Your task to perform on an android device: turn off picture-in-picture Image 0: 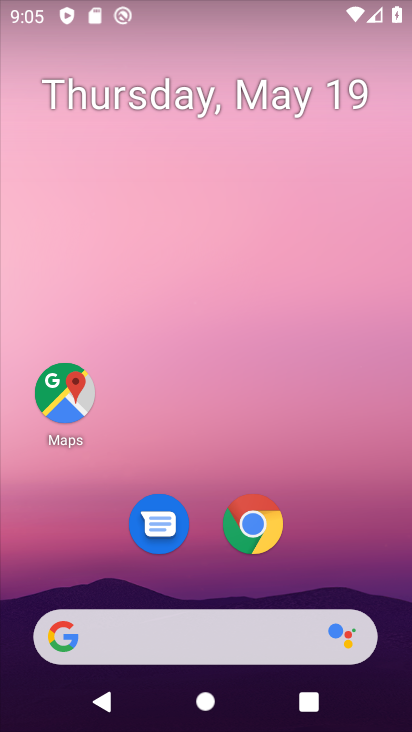
Step 0: click (250, 518)
Your task to perform on an android device: turn off picture-in-picture Image 1: 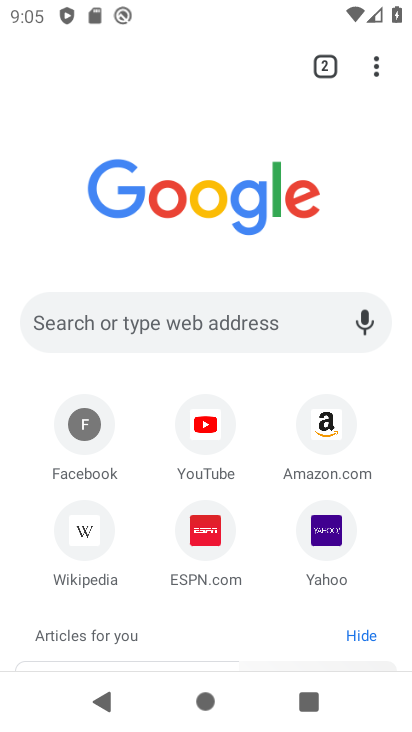
Step 1: press back button
Your task to perform on an android device: turn off picture-in-picture Image 2: 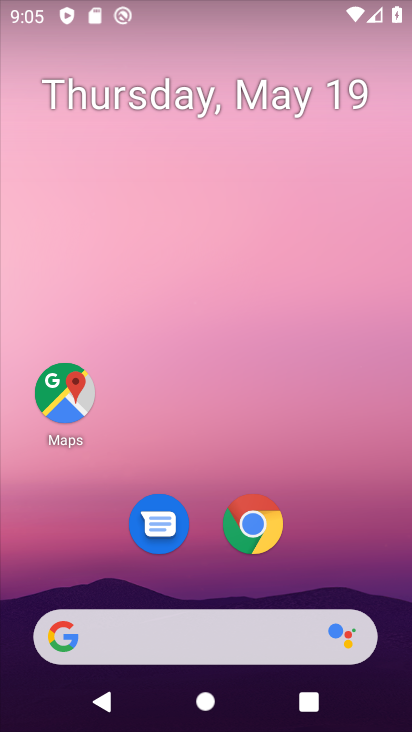
Step 2: click (250, 514)
Your task to perform on an android device: turn off picture-in-picture Image 3: 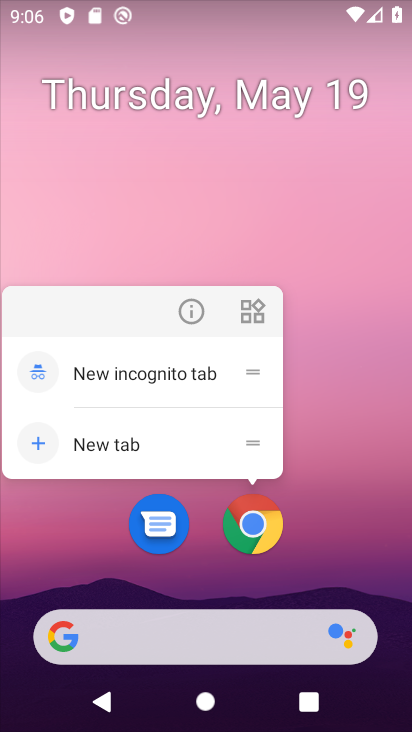
Step 3: click (192, 299)
Your task to perform on an android device: turn off picture-in-picture Image 4: 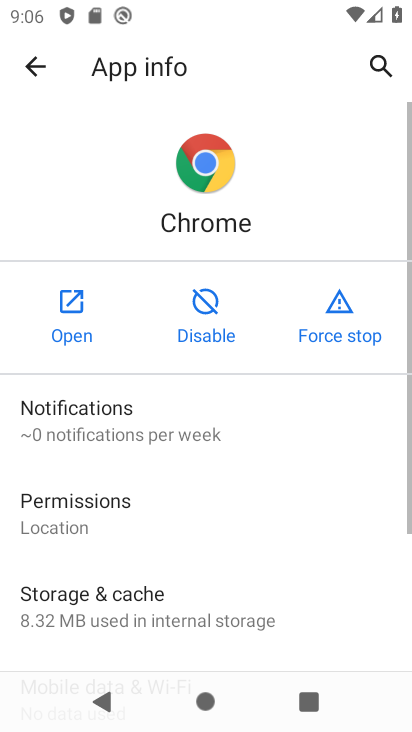
Step 4: drag from (229, 529) to (284, 131)
Your task to perform on an android device: turn off picture-in-picture Image 5: 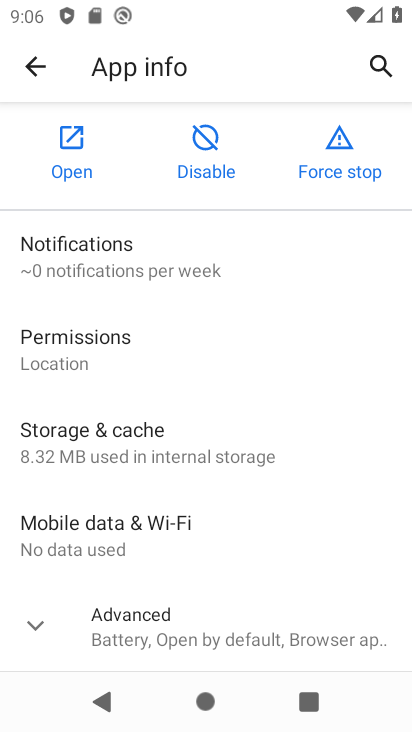
Step 5: click (38, 620)
Your task to perform on an android device: turn off picture-in-picture Image 6: 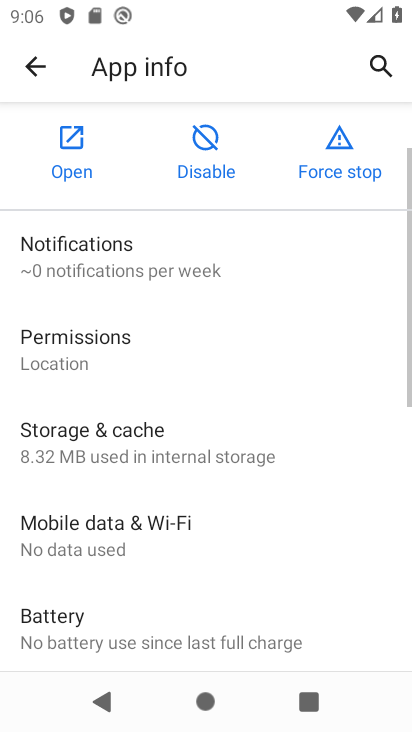
Step 6: drag from (200, 547) to (256, 95)
Your task to perform on an android device: turn off picture-in-picture Image 7: 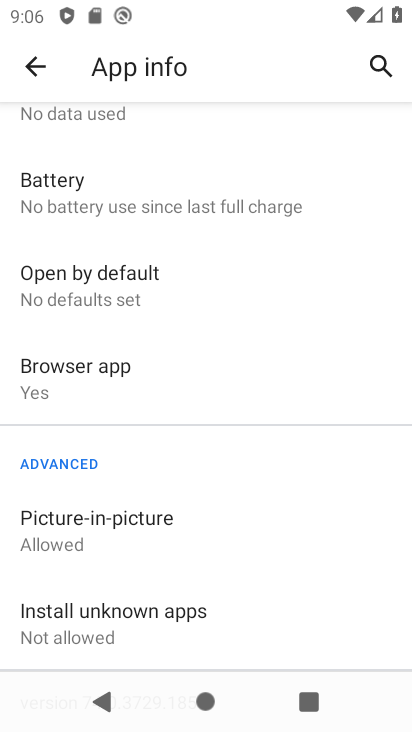
Step 7: click (108, 522)
Your task to perform on an android device: turn off picture-in-picture Image 8: 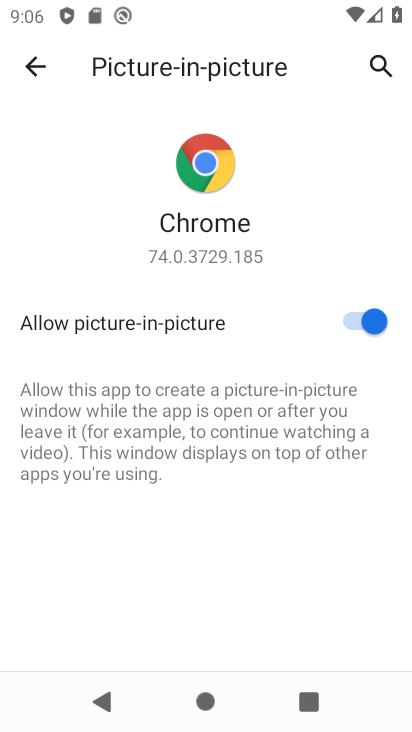
Step 8: click (349, 317)
Your task to perform on an android device: turn off picture-in-picture Image 9: 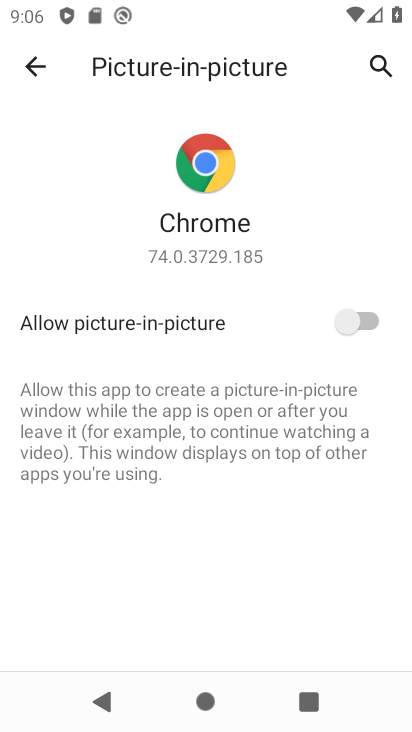
Step 9: task complete